Your task to perform on an android device: Open Google Maps Image 0: 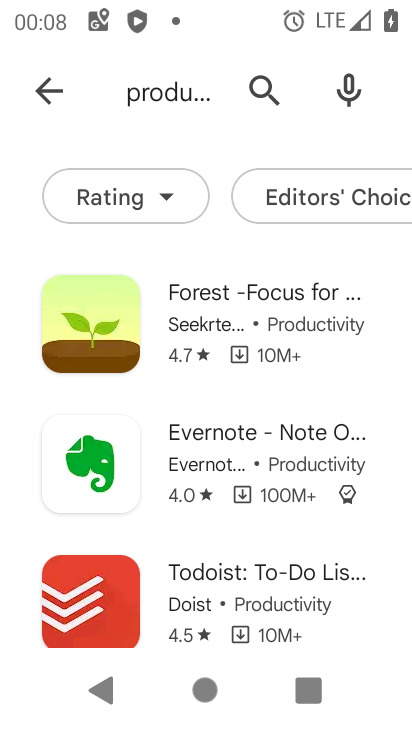
Step 0: press home button
Your task to perform on an android device: Open Google Maps Image 1: 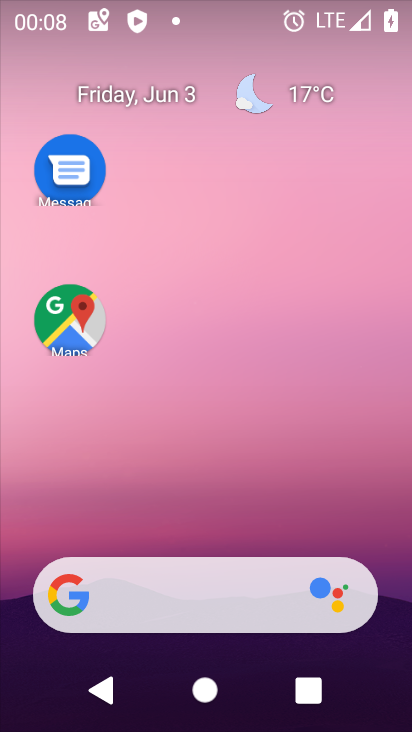
Step 1: click (68, 318)
Your task to perform on an android device: Open Google Maps Image 2: 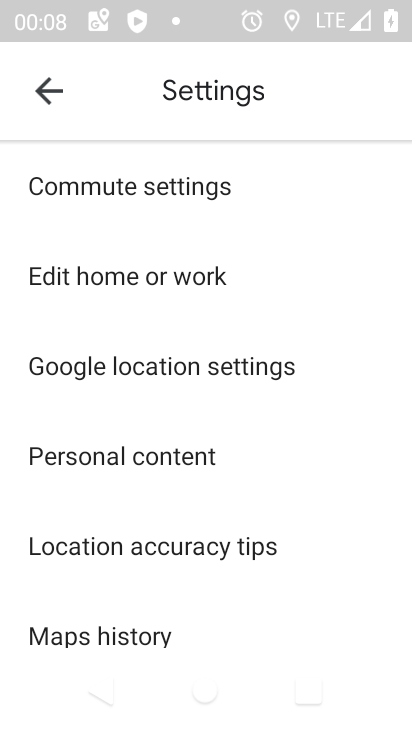
Step 2: task complete